Your task to perform on an android device: Open CNN.com Image 0: 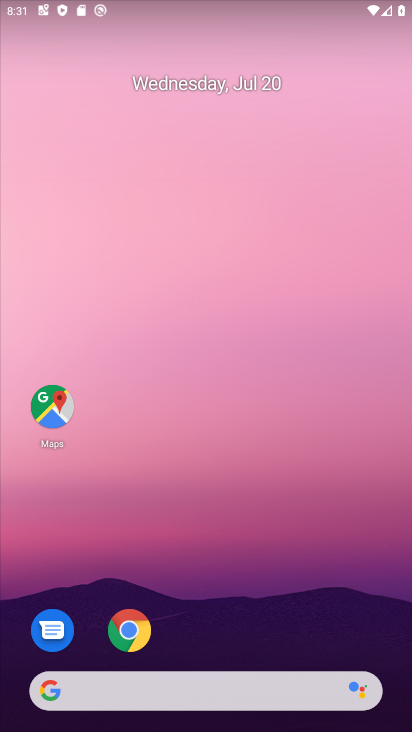
Step 0: click (142, 629)
Your task to perform on an android device: Open CNN.com Image 1: 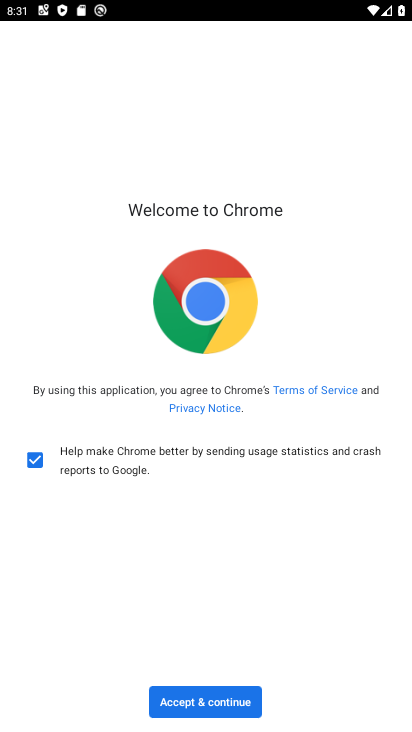
Step 1: click (223, 694)
Your task to perform on an android device: Open CNN.com Image 2: 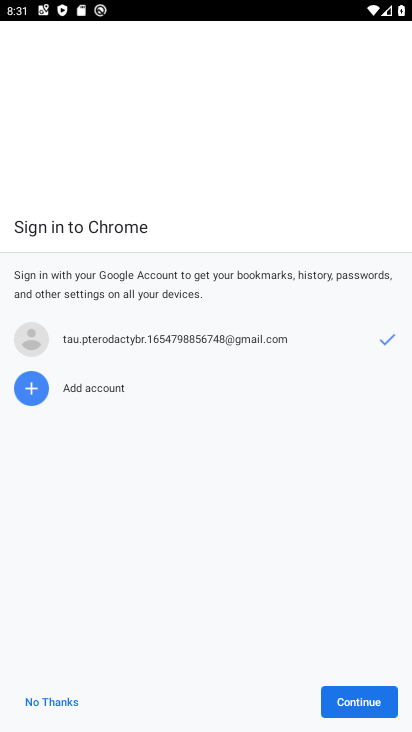
Step 2: click (396, 702)
Your task to perform on an android device: Open CNN.com Image 3: 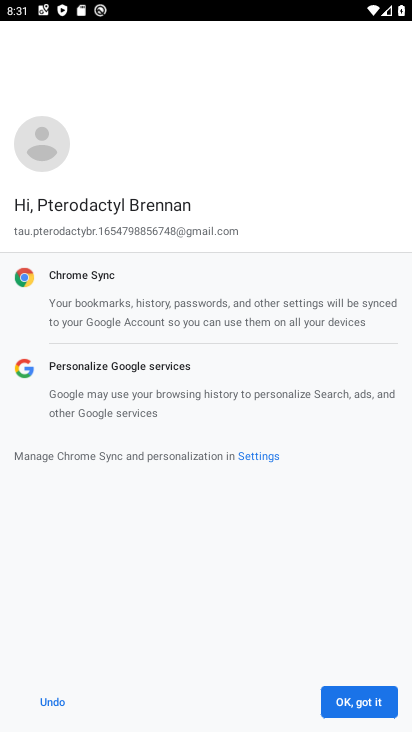
Step 3: click (380, 702)
Your task to perform on an android device: Open CNN.com Image 4: 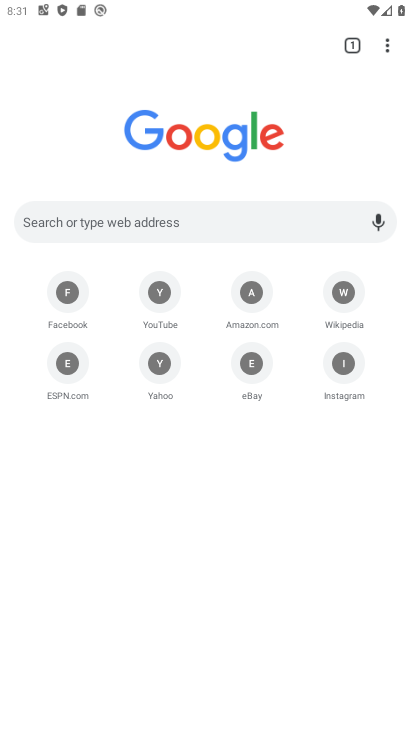
Step 4: click (209, 47)
Your task to perform on an android device: Open CNN.com Image 5: 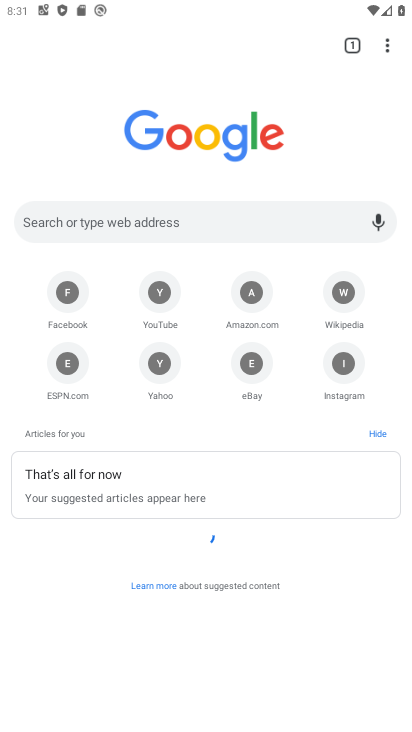
Step 5: click (132, 215)
Your task to perform on an android device: Open CNN.com Image 6: 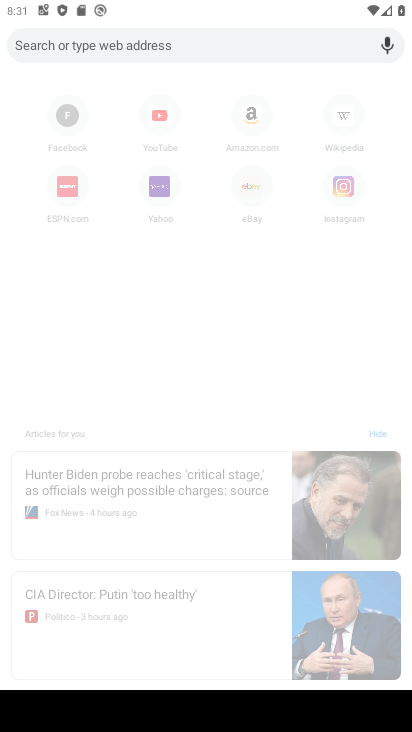
Step 6: type "CNN.com"
Your task to perform on an android device: Open CNN.com Image 7: 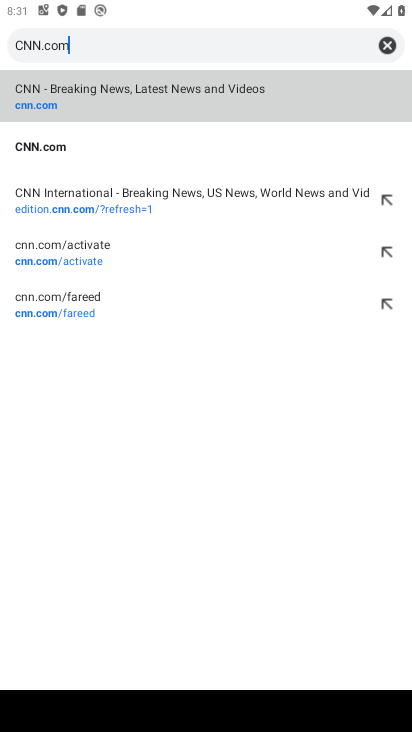
Step 7: click (20, 139)
Your task to perform on an android device: Open CNN.com Image 8: 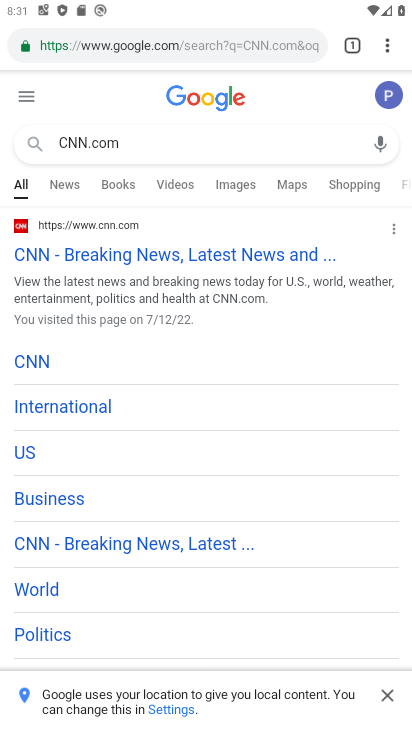
Step 8: task complete